Your task to perform on an android device: Open Chrome and go to the settings page Image 0: 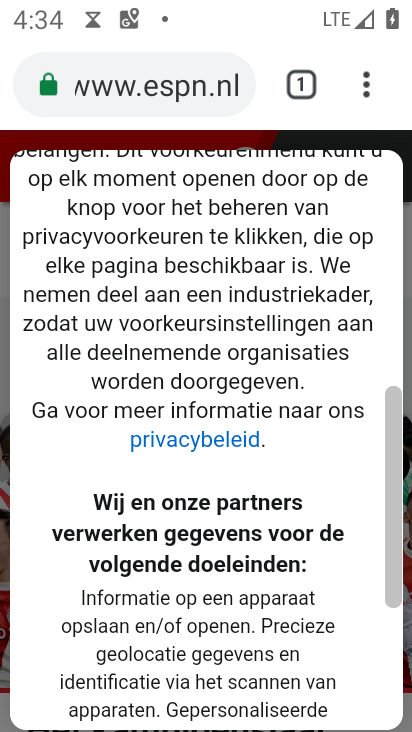
Step 0: press home button
Your task to perform on an android device: Open Chrome and go to the settings page Image 1: 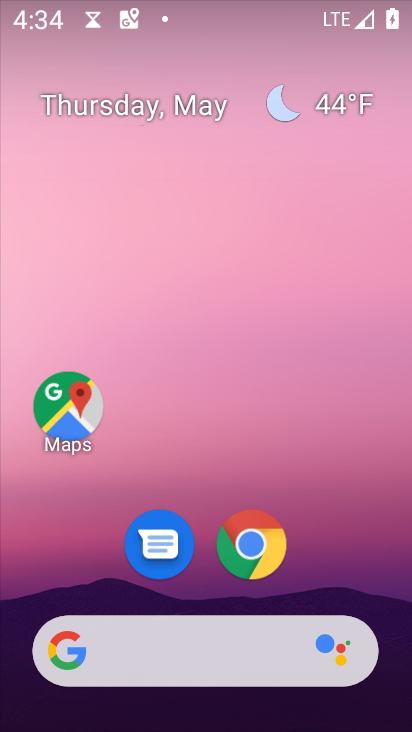
Step 1: click (250, 552)
Your task to perform on an android device: Open Chrome and go to the settings page Image 2: 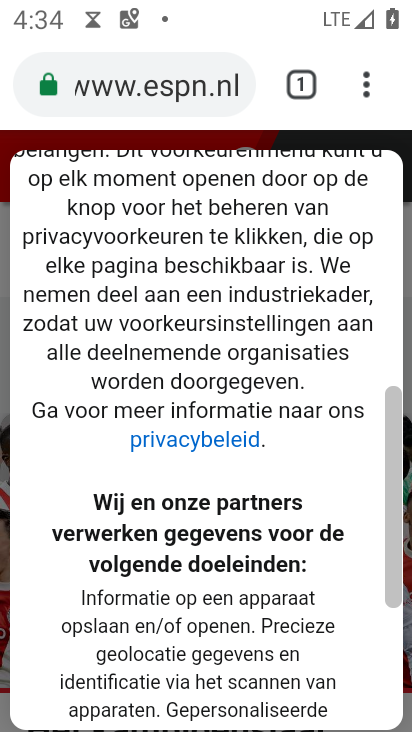
Step 2: click (365, 66)
Your task to perform on an android device: Open Chrome and go to the settings page Image 3: 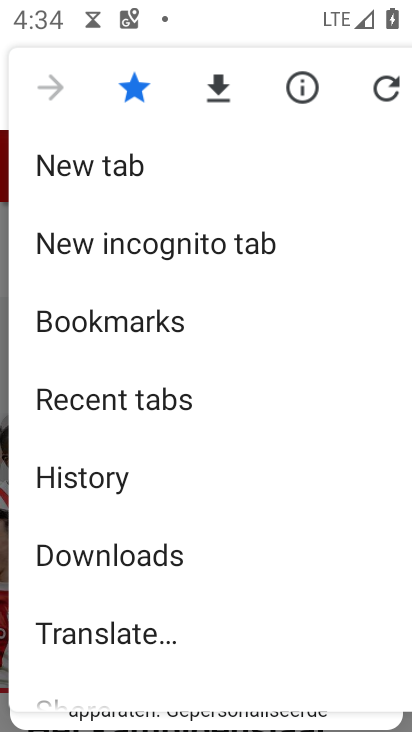
Step 3: drag from (213, 601) to (207, 325)
Your task to perform on an android device: Open Chrome and go to the settings page Image 4: 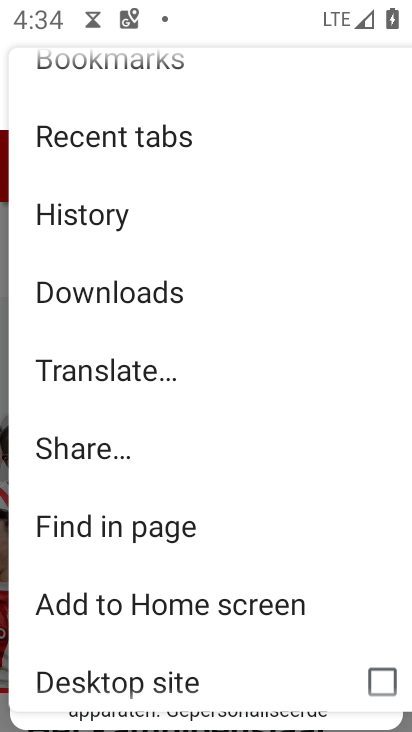
Step 4: drag from (150, 643) to (150, 419)
Your task to perform on an android device: Open Chrome and go to the settings page Image 5: 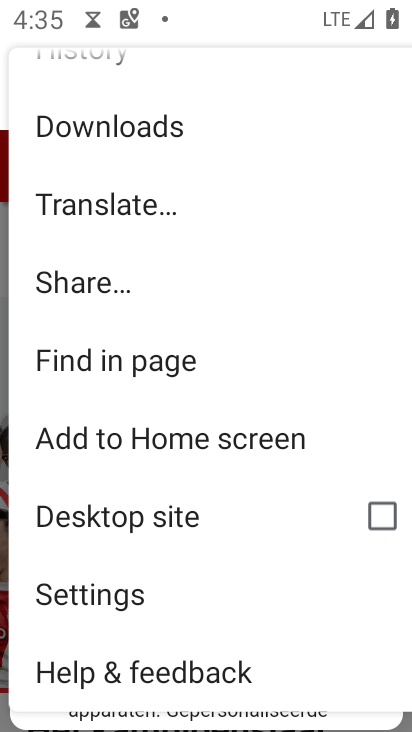
Step 5: click (96, 607)
Your task to perform on an android device: Open Chrome and go to the settings page Image 6: 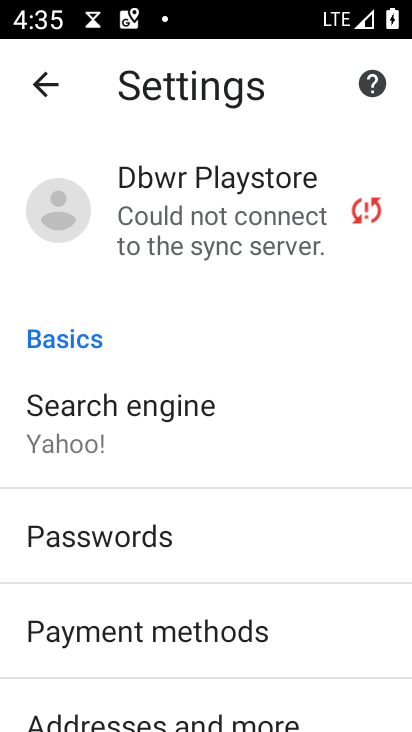
Step 6: task complete